Your task to perform on an android device: Open settings Image 0: 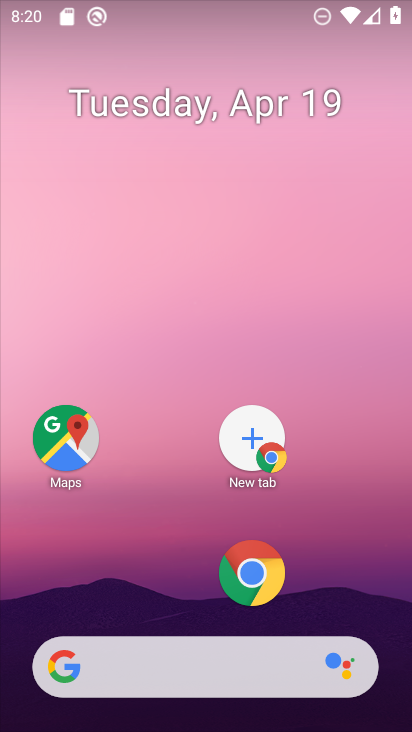
Step 0: drag from (170, 599) to (201, 77)
Your task to perform on an android device: Open settings Image 1: 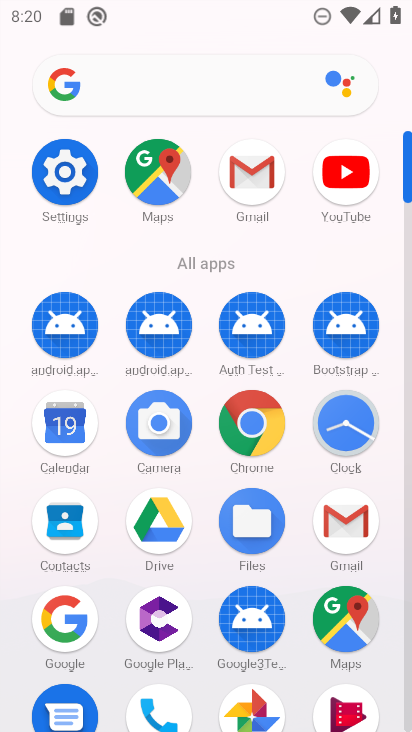
Step 1: click (60, 183)
Your task to perform on an android device: Open settings Image 2: 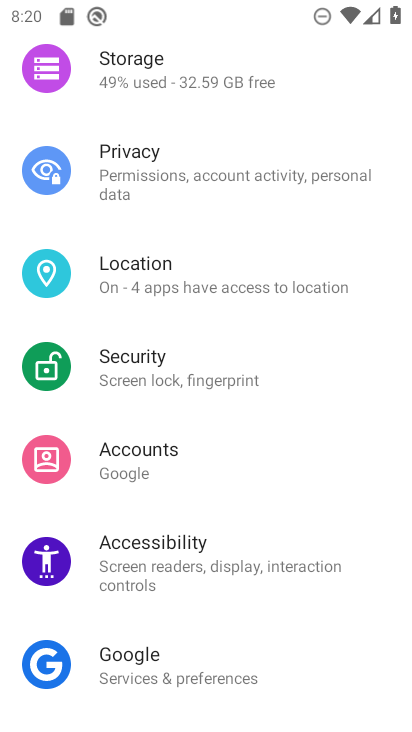
Step 2: task complete